Your task to perform on an android device: change the clock display to digital Image 0: 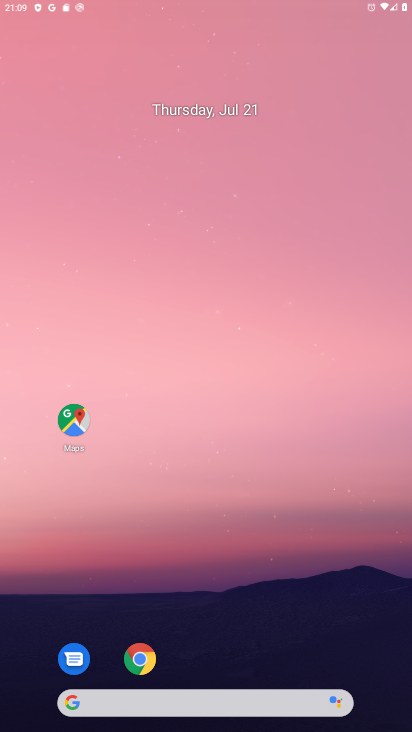
Step 0: press home button
Your task to perform on an android device: change the clock display to digital Image 1: 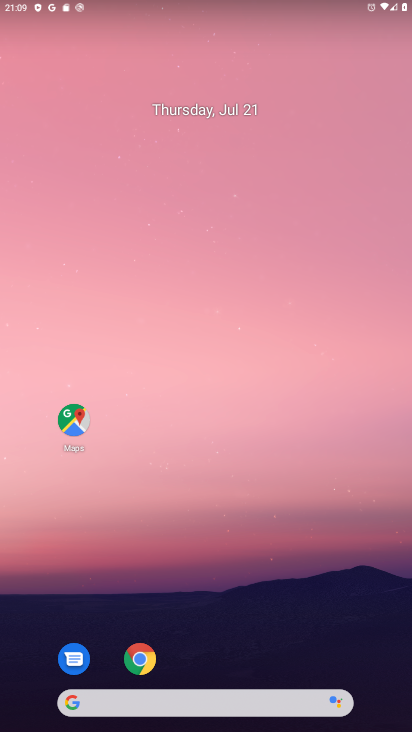
Step 1: drag from (251, 693) to (243, 134)
Your task to perform on an android device: change the clock display to digital Image 2: 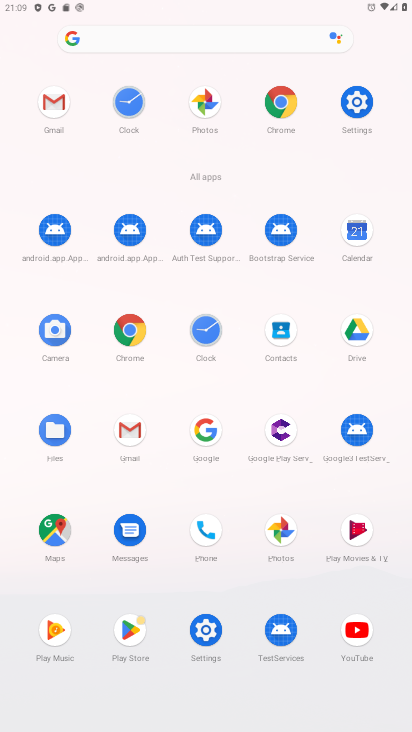
Step 2: click (219, 346)
Your task to perform on an android device: change the clock display to digital Image 3: 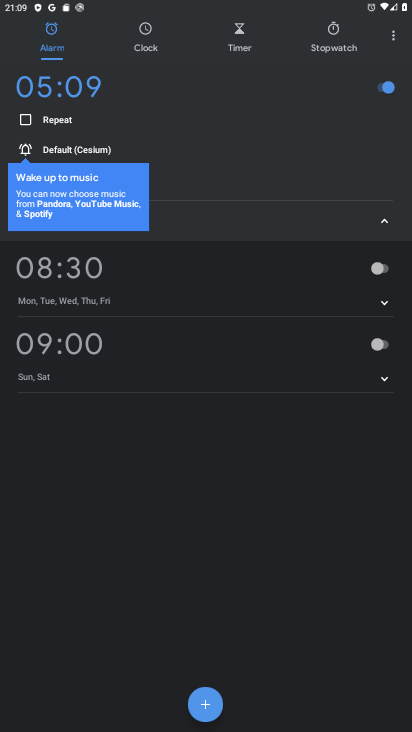
Step 3: click (397, 38)
Your task to perform on an android device: change the clock display to digital Image 4: 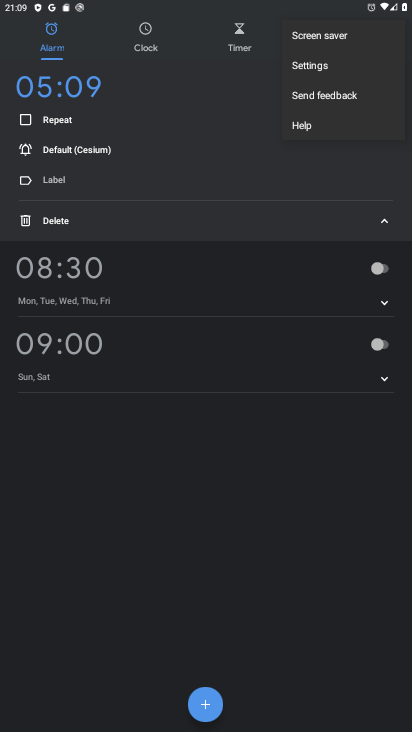
Step 4: click (306, 61)
Your task to perform on an android device: change the clock display to digital Image 5: 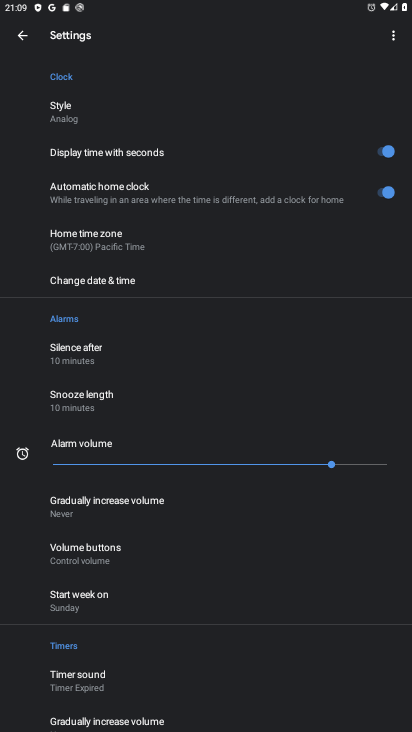
Step 5: click (57, 116)
Your task to perform on an android device: change the clock display to digital Image 6: 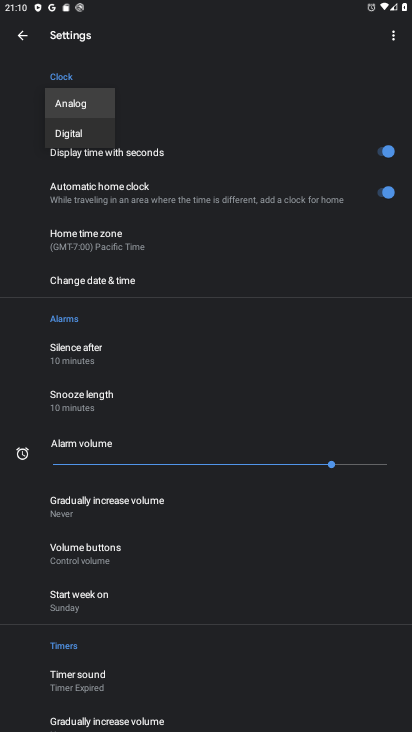
Step 6: click (62, 136)
Your task to perform on an android device: change the clock display to digital Image 7: 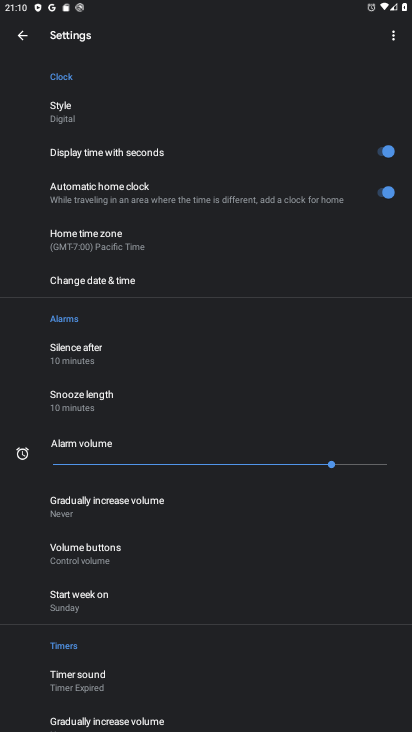
Step 7: task complete